Your task to perform on an android device: turn pop-ups on in chrome Image 0: 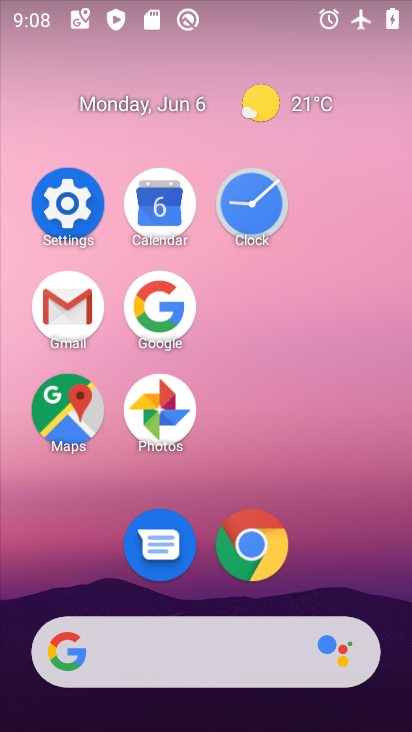
Step 0: click (237, 541)
Your task to perform on an android device: turn pop-ups on in chrome Image 1: 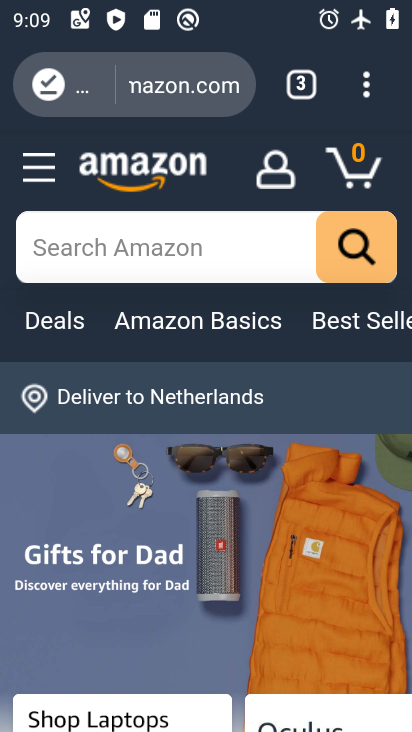
Step 1: click (369, 83)
Your task to perform on an android device: turn pop-ups on in chrome Image 2: 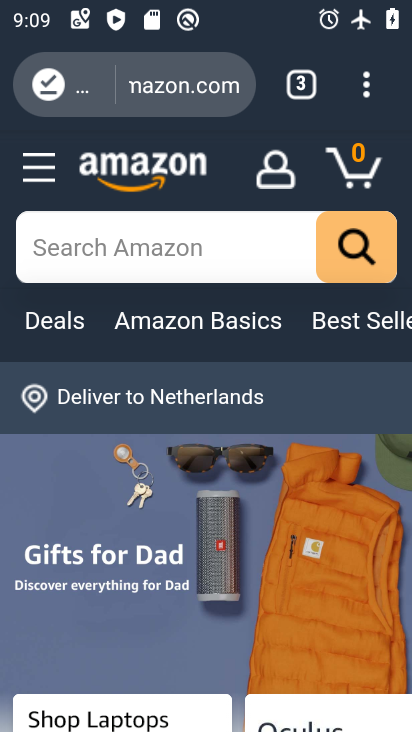
Step 2: click (378, 98)
Your task to perform on an android device: turn pop-ups on in chrome Image 3: 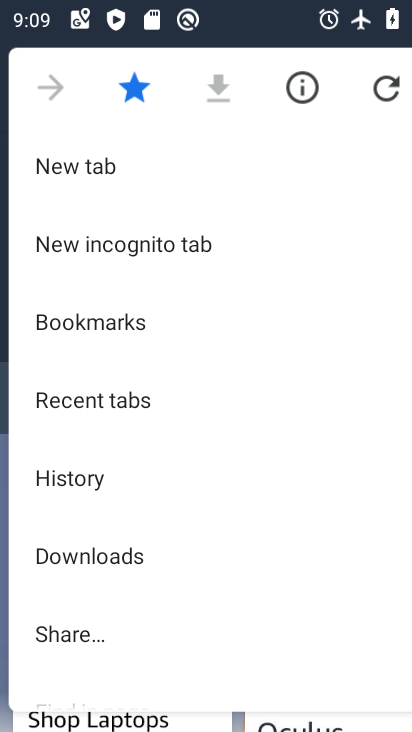
Step 3: drag from (199, 520) to (200, 177)
Your task to perform on an android device: turn pop-ups on in chrome Image 4: 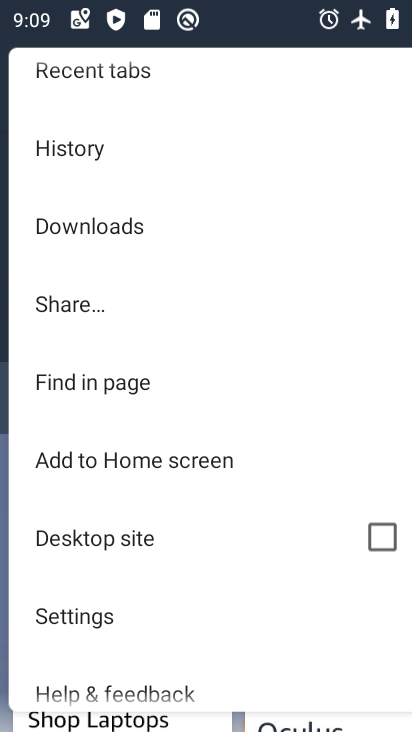
Step 4: click (107, 604)
Your task to perform on an android device: turn pop-ups on in chrome Image 5: 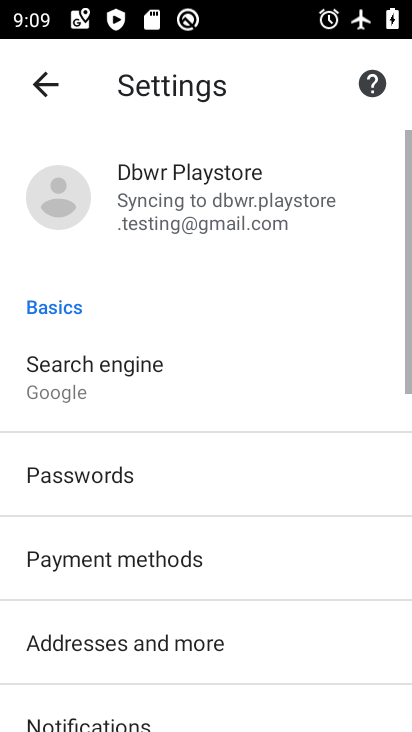
Step 5: drag from (186, 592) to (262, 253)
Your task to perform on an android device: turn pop-ups on in chrome Image 6: 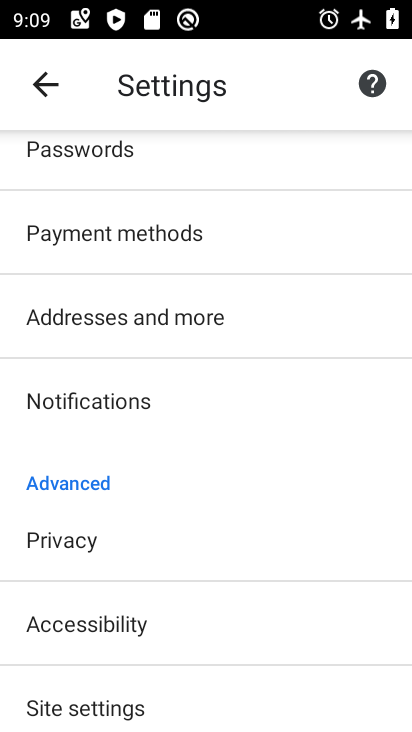
Step 6: drag from (170, 673) to (231, 353)
Your task to perform on an android device: turn pop-ups on in chrome Image 7: 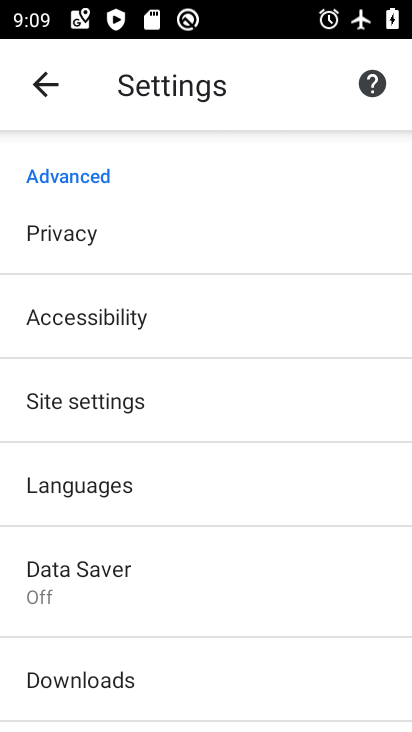
Step 7: click (205, 377)
Your task to perform on an android device: turn pop-ups on in chrome Image 8: 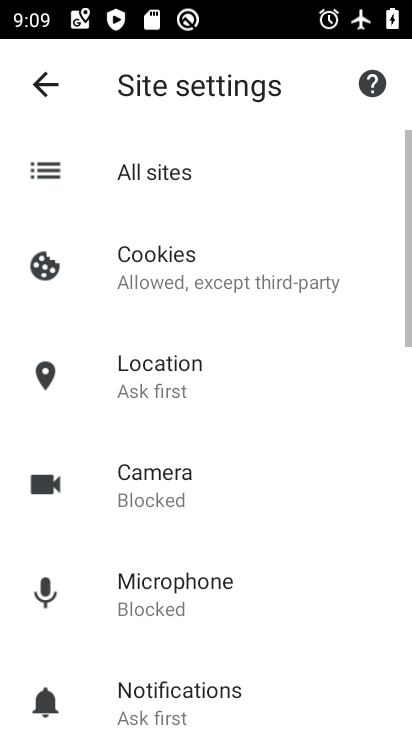
Step 8: drag from (223, 634) to (209, 337)
Your task to perform on an android device: turn pop-ups on in chrome Image 9: 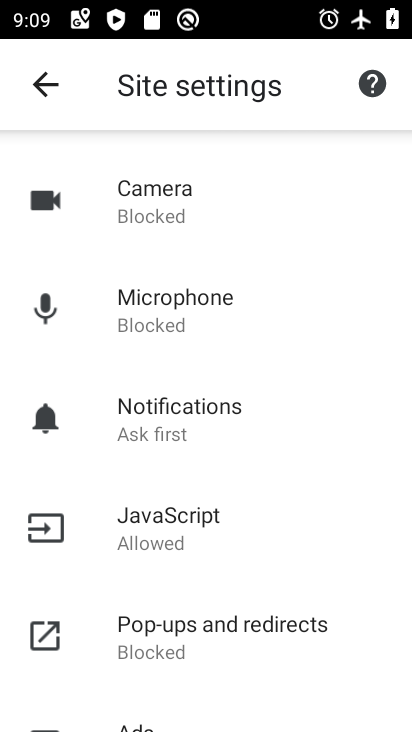
Step 9: click (187, 618)
Your task to perform on an android device: turn pop-ups on in chrome Image 10: 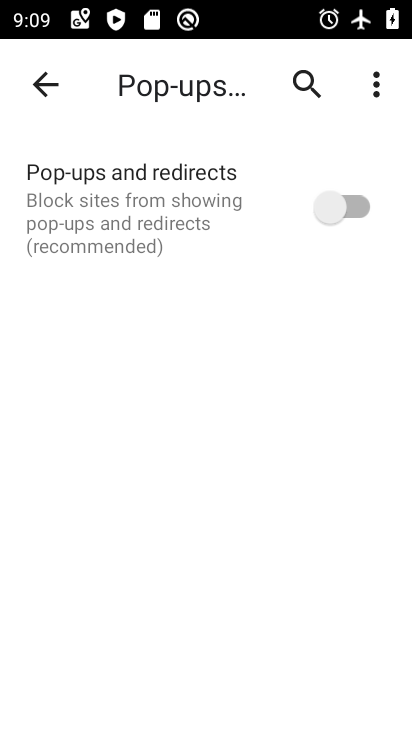
Step 10: click (350, 191)
Your task to perform on an android device: turn pop-ups on in chrome Image 11: 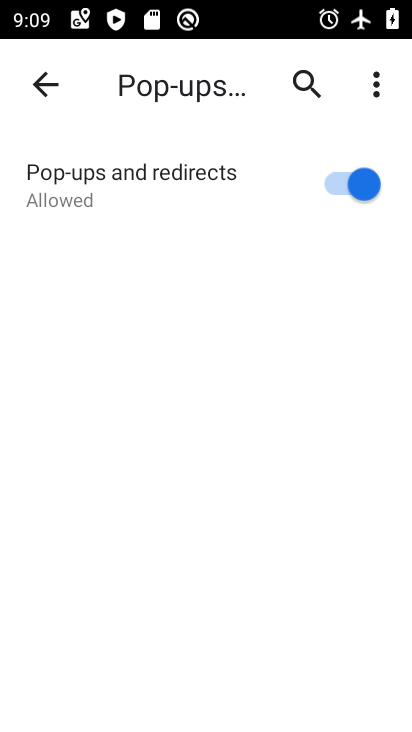
Step 11: task complete